Your task to perform on an android device: Turn off the flashlight Image 0: 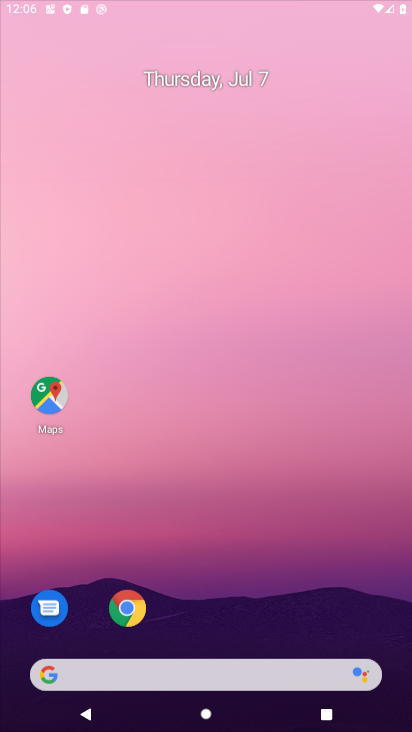
Step 0: drag from (162, 663) to (180, 370)
Your task to perform on an android device: Turn off the flashlight Image 1: 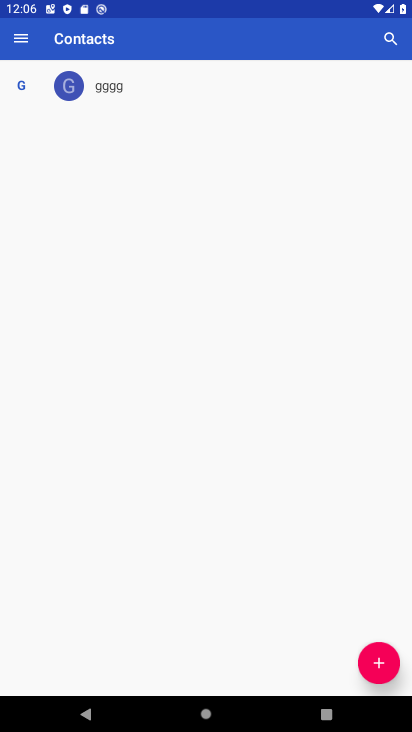
Step 1: press home button
Your task to perform on an android device: Turn off the flashlight Image 2: 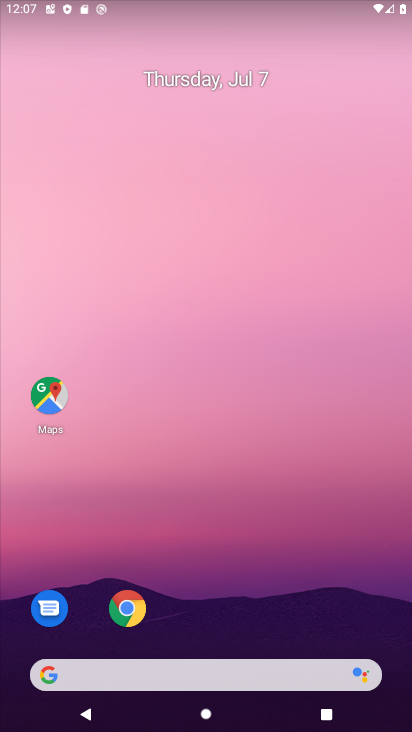
Step 2: drag from (228, 4) to (199, 542)
Your task to perform on an android device: Turn off the flashlight Image 3: 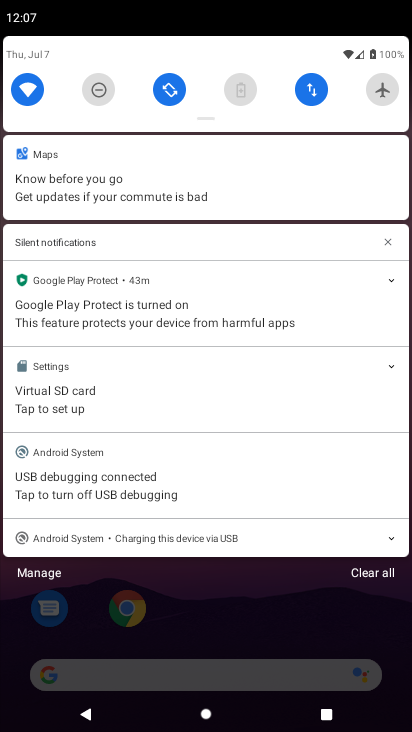
Step 3: drag from (227, 187) to (214, 543)
Your task to perform on an android device: Turn off the flashlight Image 4: 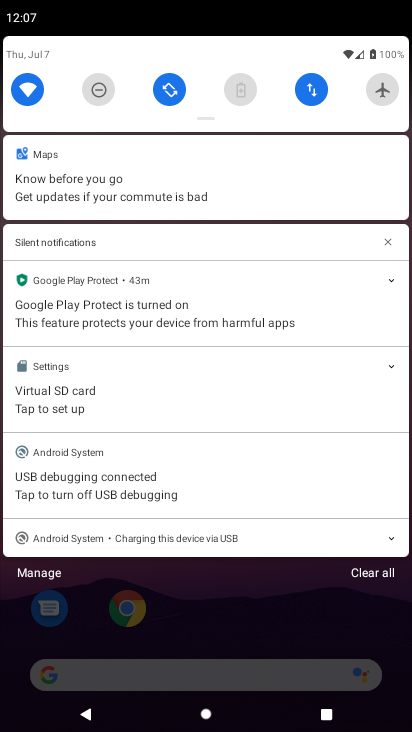
Step 4: drag from (267, 45) to (252, 618)
Your task to perform on an android device: Turn off the flashlight Image 5: 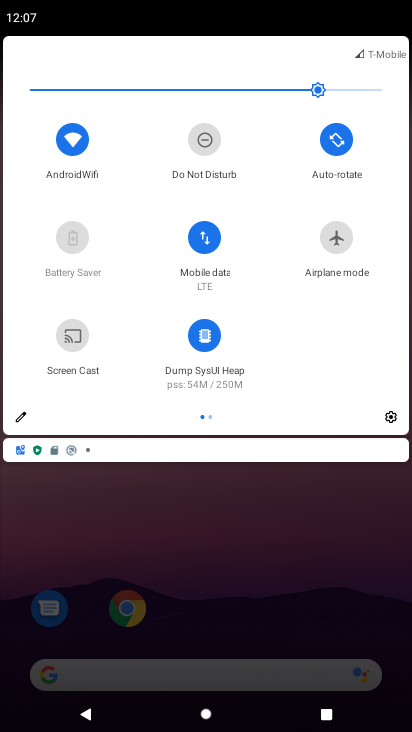
Step 5: drag from (350, 290) to (19, 304)
Your task to perform on an android device: Turn off the flashlight Image 6: 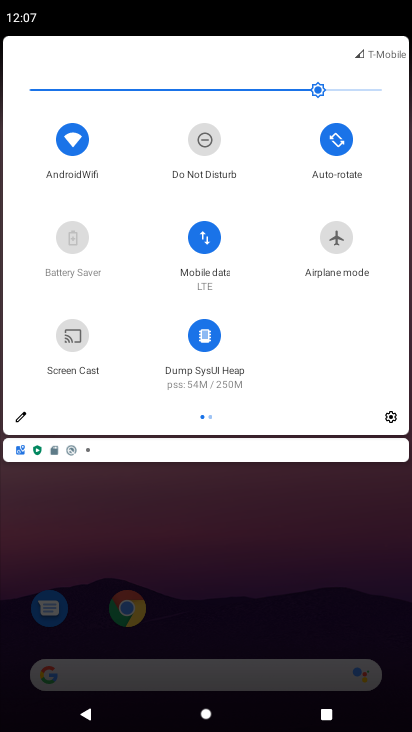
Step 6: drag from (303, 309) to (4, 328)
Your task to perform on an android device: Turn off the flashlight Image 7: 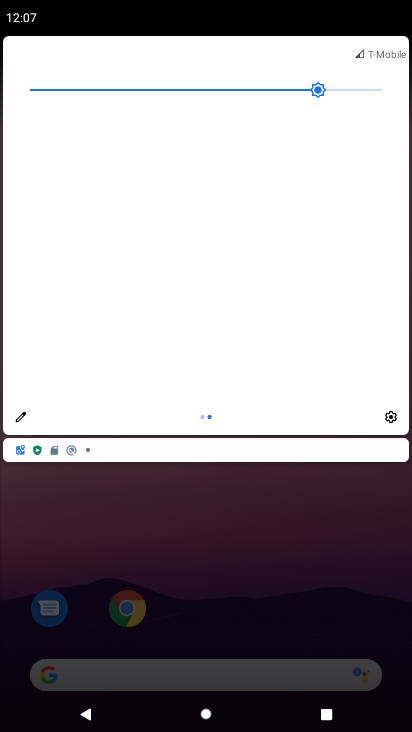
Step 7: click (20, 414)
Your task to perform on an android device: Turn off the flashlight Image 8: 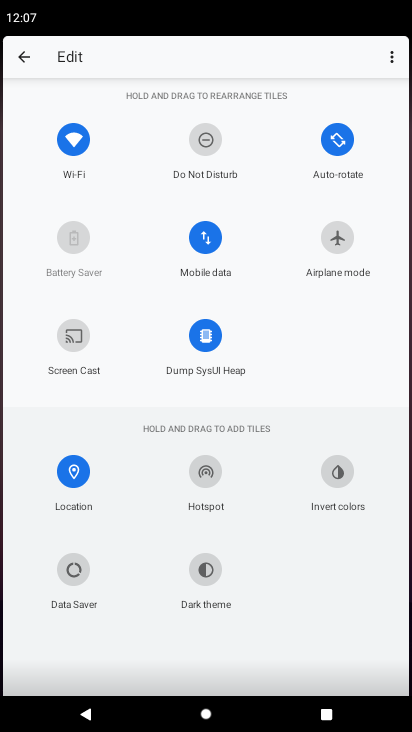
Step 8: task complete